Your task to perform on an android device: set the stopwatch Image 0: 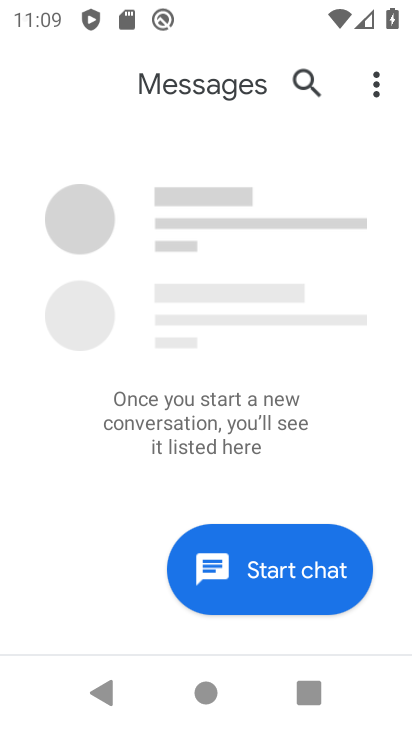
Step 0: press home button
Your task to perform on an android device: set the stopwatch Image 1: 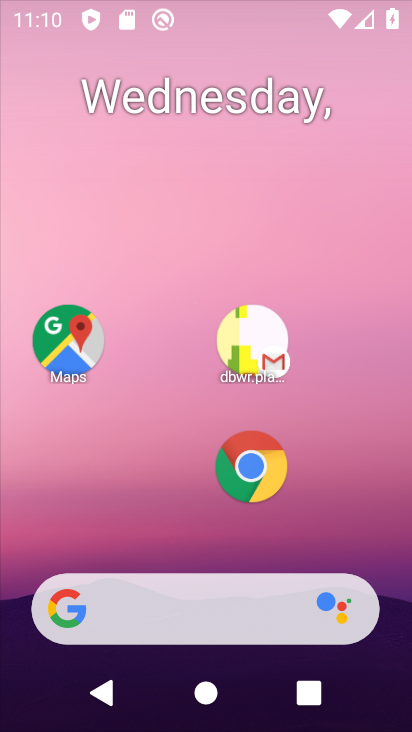
Step 1: drag from (265, 692) to (185, 67)
Your task to perform on an android device: set the stopwatch Image 2: 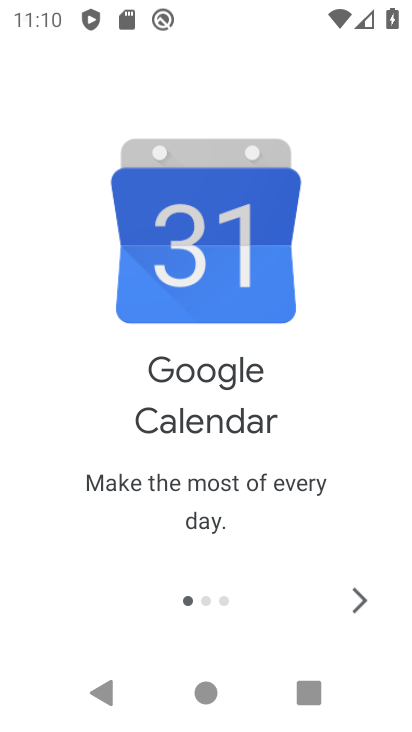
Step 2: click (356, 591)
Your task to perform on an android device: set the stopwatch Image 3: 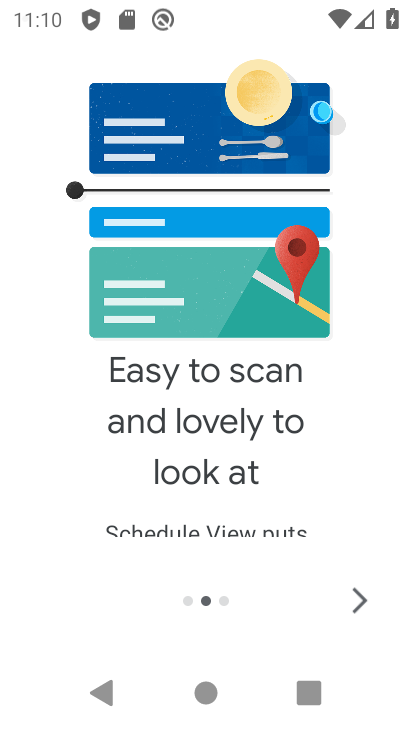
Step 3: click (356, 591)
Your task to perform on an android device: set the stopwatch Image 4: 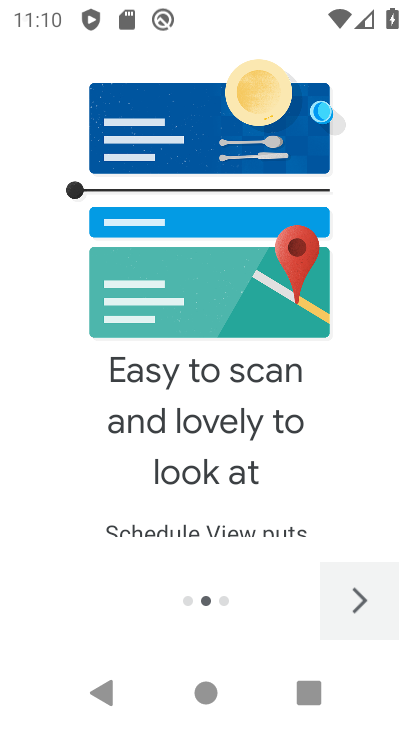
Step 4: click (357, 589)
Your task to perform on an android device: set the stopwatch Image 5: 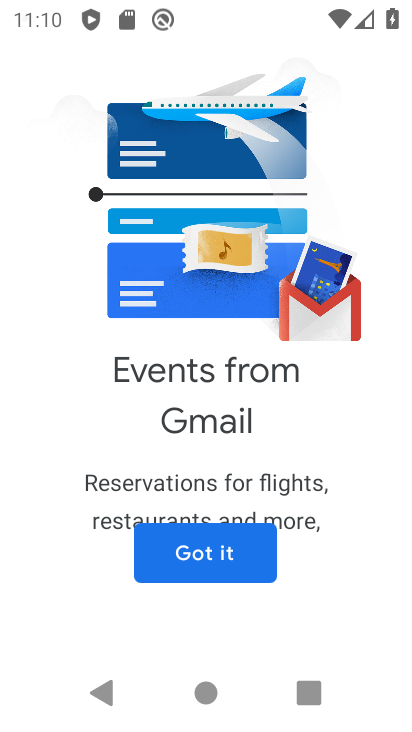
Step 5: click (206, 563)
Your task to perform on an android device: set the stopwatch Image 6: 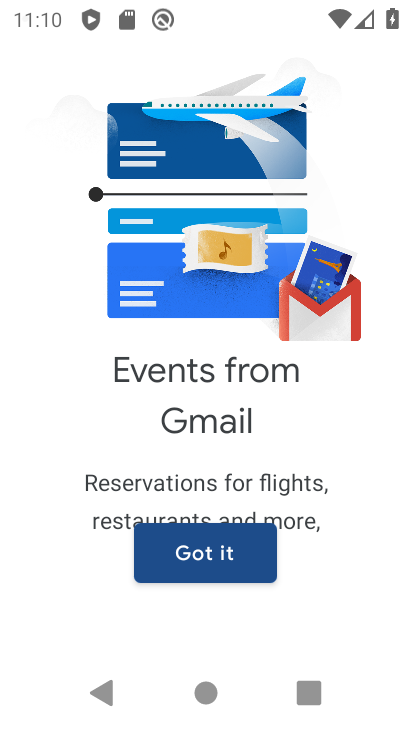
Step 6: click (206, 563)
Your task to perform on an android device: set the stopwatch Image 7: 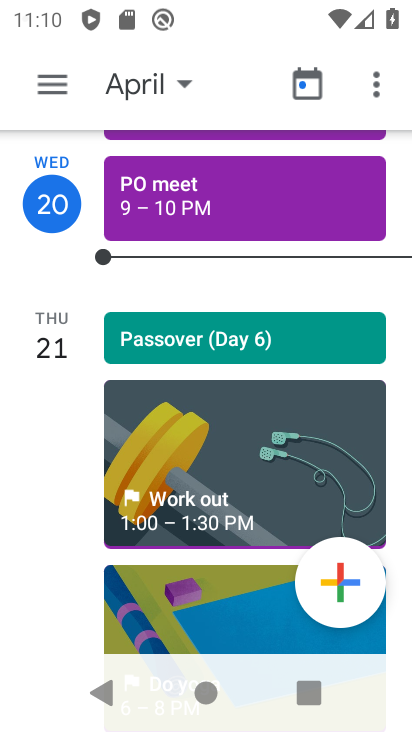
Step 7: press home button
Your task to perform on an android device: set the stopwatch Image 8: 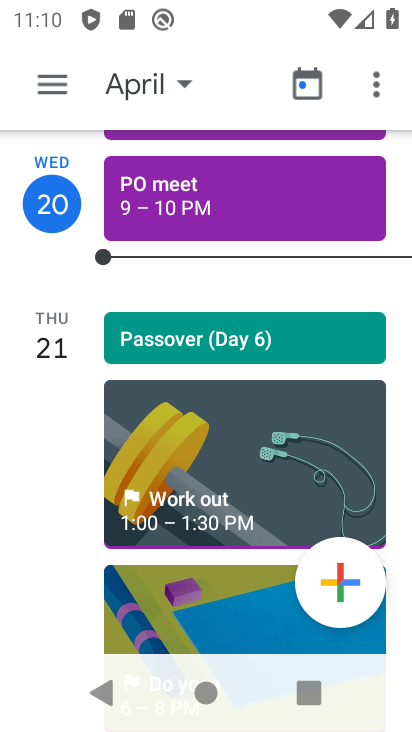
Step 8: press home button
Your task to perform on an android device: set the stopwatch Image 9: 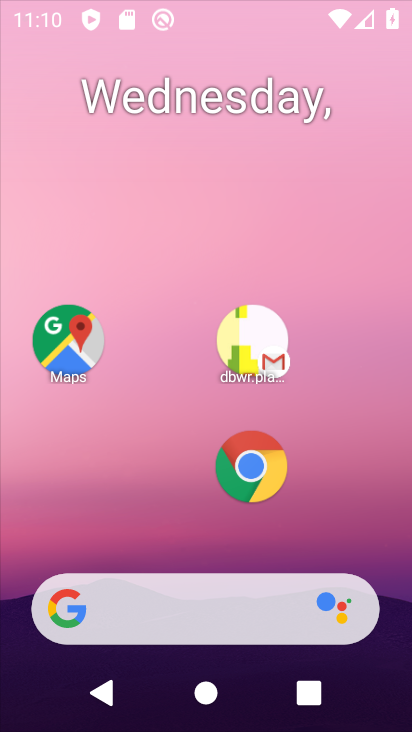
Step 9: press home button
Your task to perform on an android device: set the stopwatch Image 10: 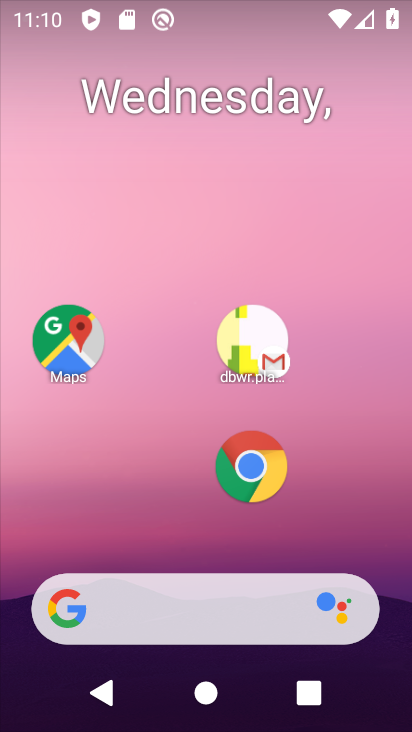
Step 10: press home button
Your task to perform on an android device: set the stopwatch Image 11: 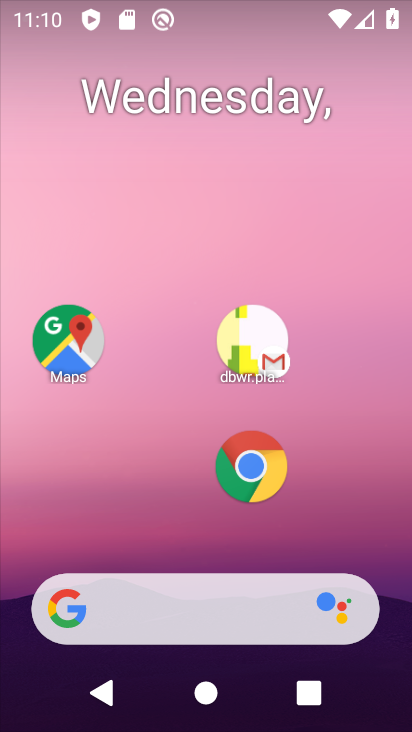
Step 11: press home button
Your task to perform on an android device: set the stopwatch Image 12: 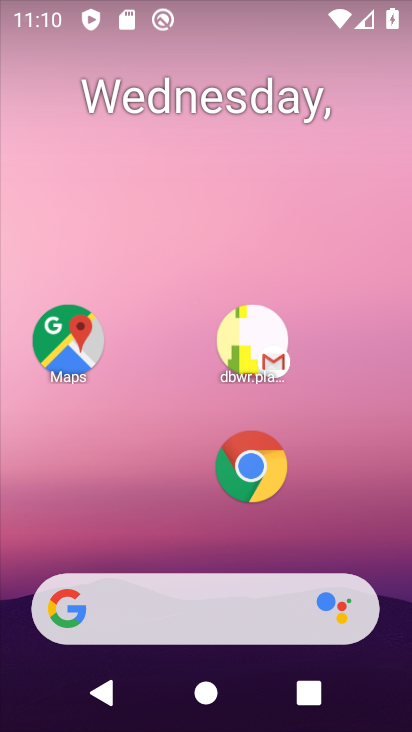
Step 12: drag from (163, 208) to (156, 148)
Your task to perform on an android device: set the stopwatch Image 13: 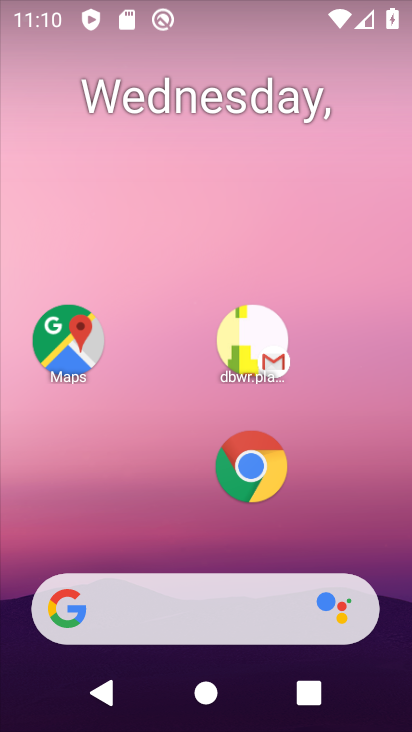
Step 13: drag from (291, 679) to (344, 43)
Your task to perform on an android device: set the stopwatch Image 14: 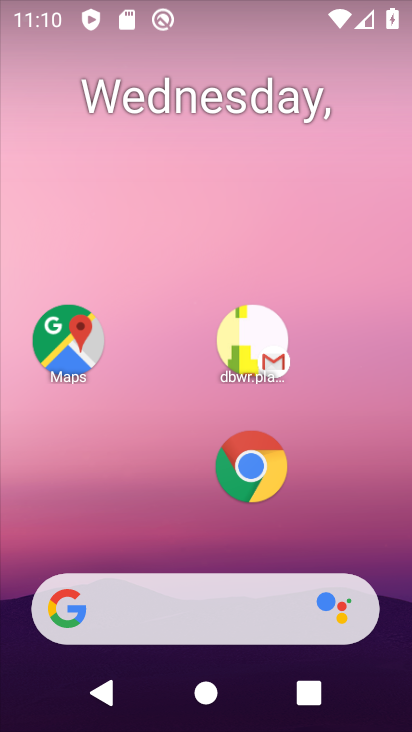
Step 14: drag from (241, 559) to (177, 176)
Your task to perform on an android device: set the stopwatch Image 15: 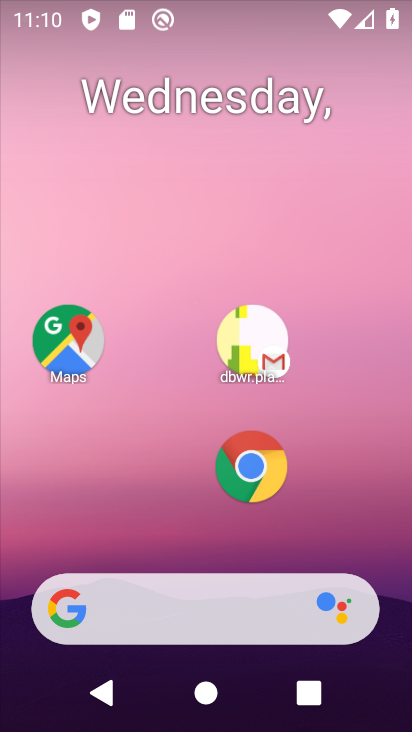
Step 15: drag from (286, 498) to (120, 10)
Your task to perform on an android device: set the stopwatch Image 16: 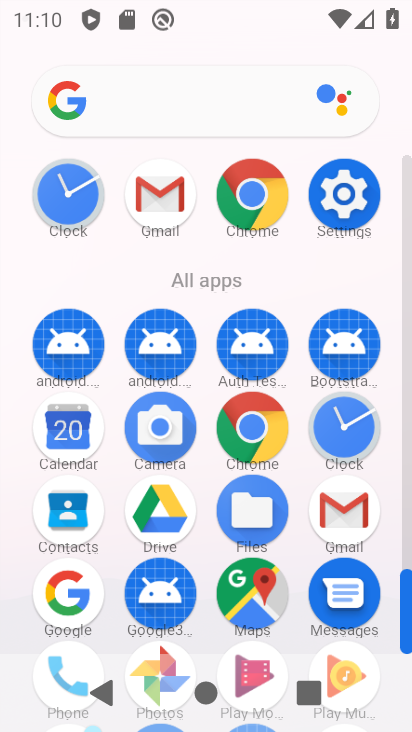
Step 16: click (330, 427)
Your task to perform on an android device: set the stopwatch Image 17: 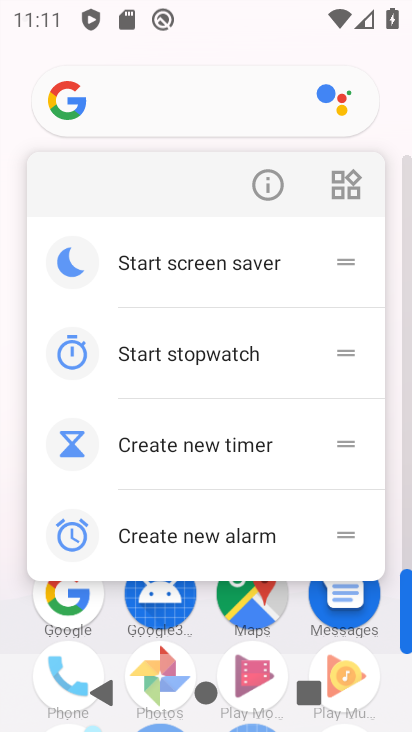
Step 17: click (154, 346)
Your task to perform on an android device: set the stopwatch Image 18: 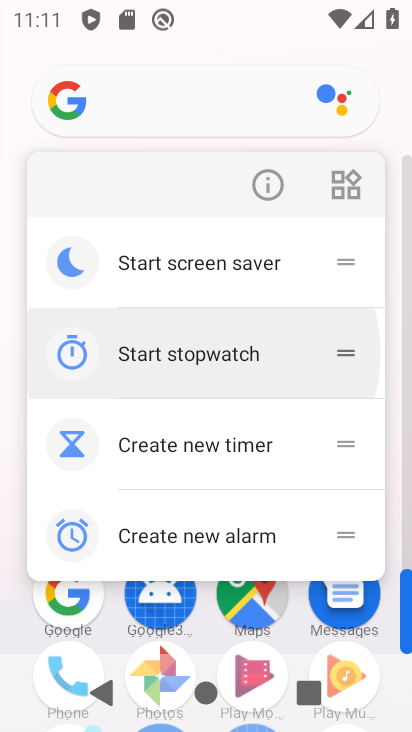
Step 18: drag from (161, 350) to (236, 360)
Your task to perform on an android device: set the stopwatch Image 19: 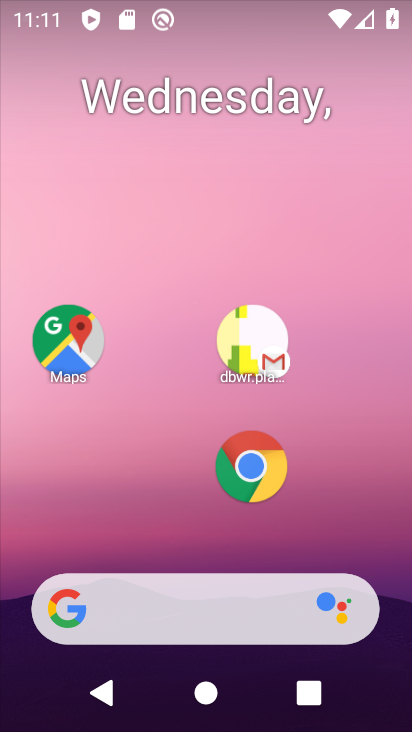
Step 19: drag from (298, 644) to (174, 249)
Your task to perform on an android device: set the stopwatch Image 20: 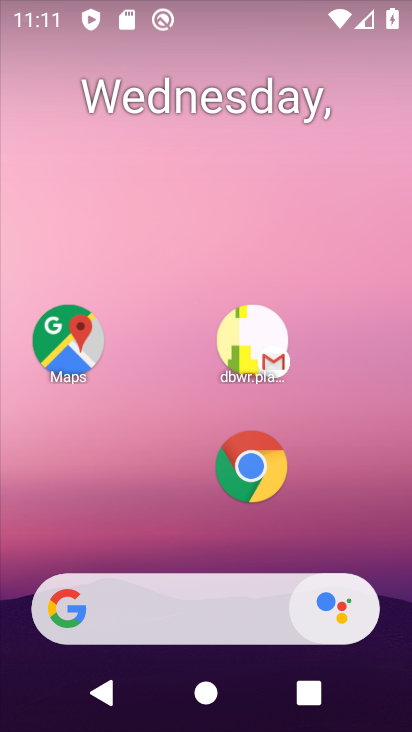
Step 20: drag from (315, 558) to (232, 169)
Your task to perform on an android device: set the stopwatch Image 21: 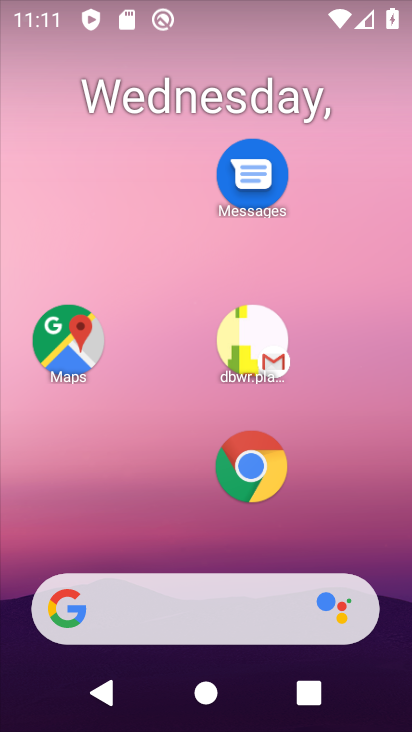
Step 21: drag from (338, 583) to (179, 85)
Your task to perform on an android device: set the stopwatch Image 22: 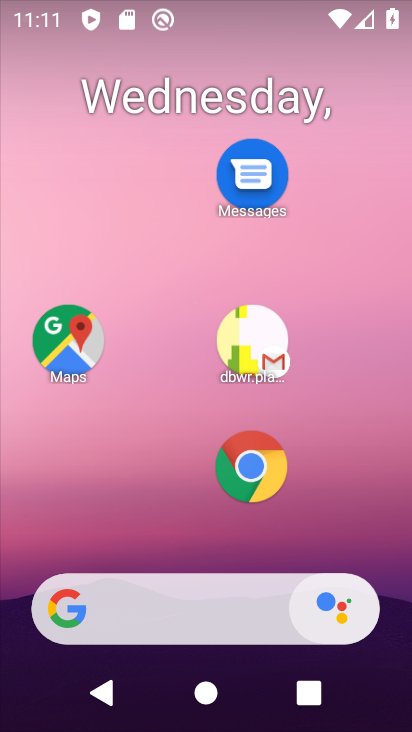
Step 22: drag from (256, 543) to (141, 139)
Your task to perform on an android device: set the stopwatch Image 23: 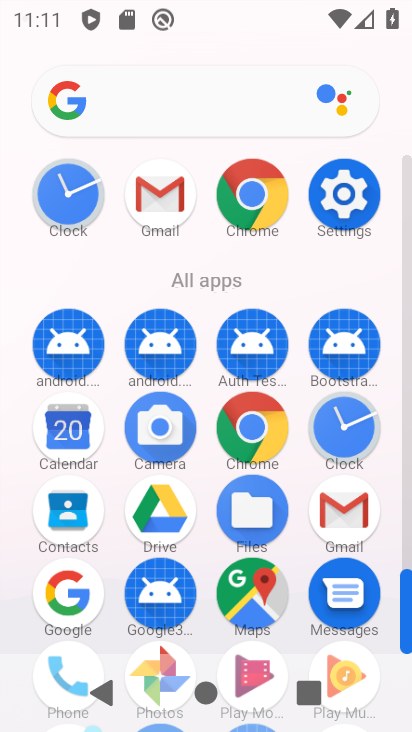
Step 23: click (338, 409)
Your task to perform on an android device: set the stopwatch Image 24: 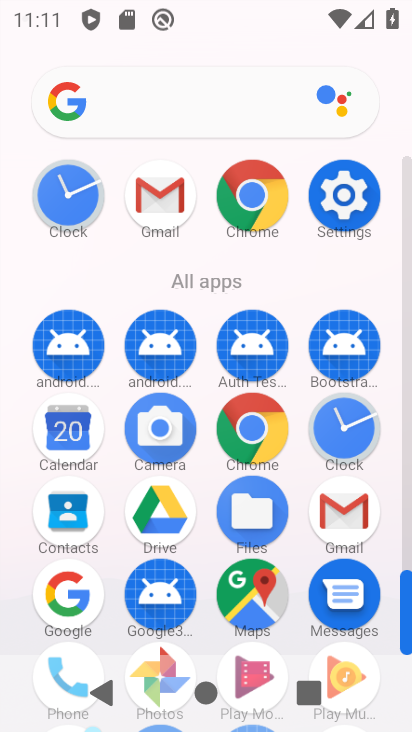
Step 24: click (342, 424)
Your task to perform on an android device: set the stopwatch Image 25: 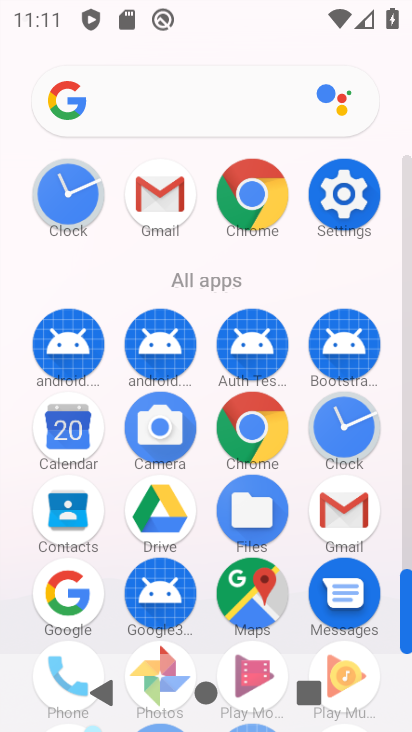
Step 25: click (342, 424)
Your task to perform on an android device: set the stopwatch Image 26: 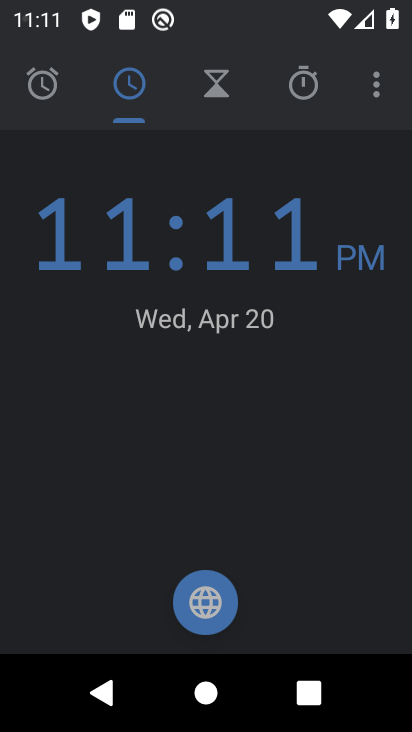
Step 26: click (342, 425)
Your task to perform on an android device: set the stopwatch Image 27: 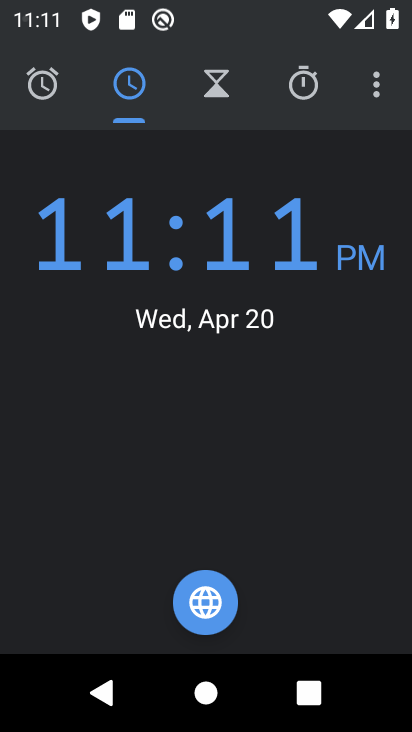
Step 27: click (342, 425)
Your task to perform on an android device: set the stopwatch Image 28: 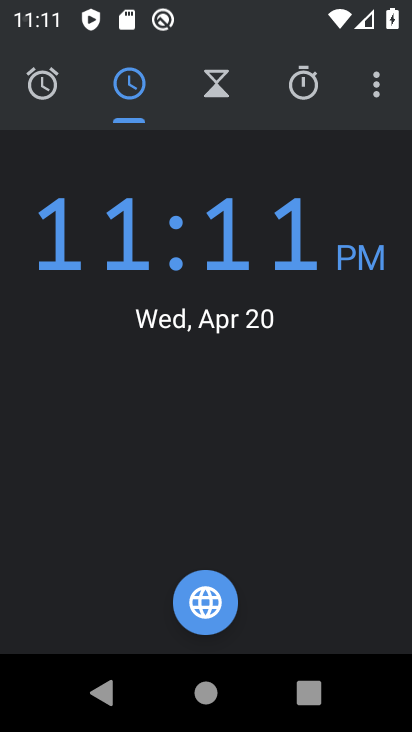
Step 28: click (376, 81)
Your task to perform on an android device: set the stopwatch Image 29: 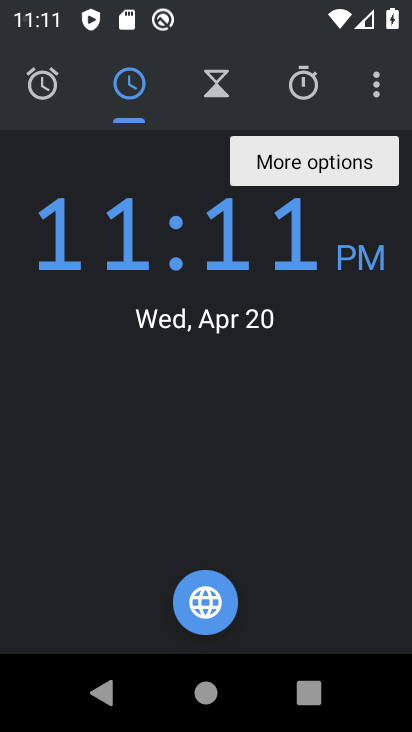
Step 29: drag from (223, 383) to (297, 91)
Your task to perform on an android device: set the stopwatch Image 30: 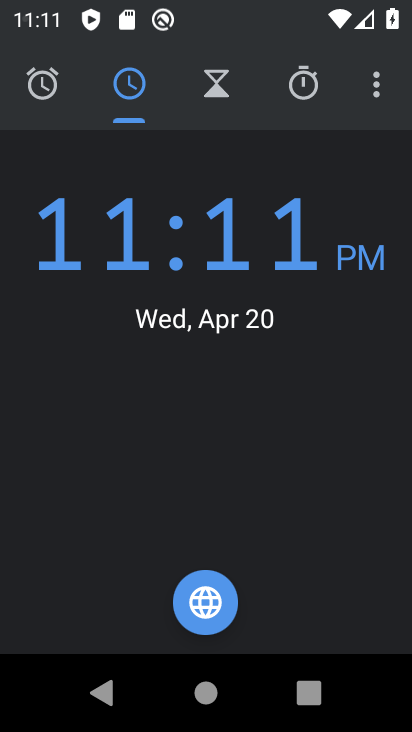
Step 30: click (297, 91)
Your task to perform on an android device: set the stopwatch Image 31: 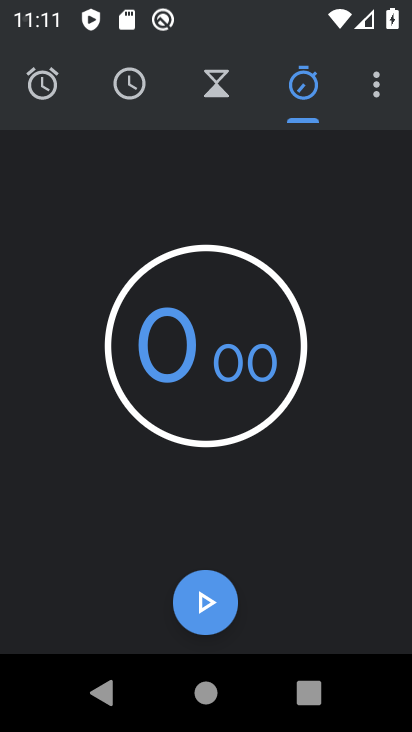
Step 31: click (297, 91)
Your task to perform on an android device: set the stopwatch Image 32: 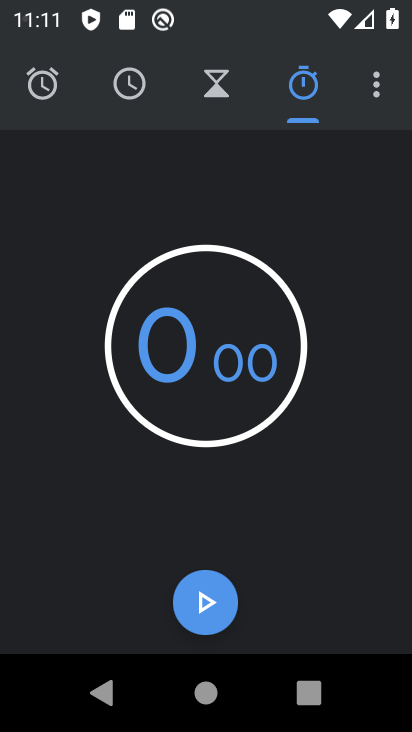
Step 32: click (186, 598)
Your task to perform on an android device: set the stopwatch Image 33: 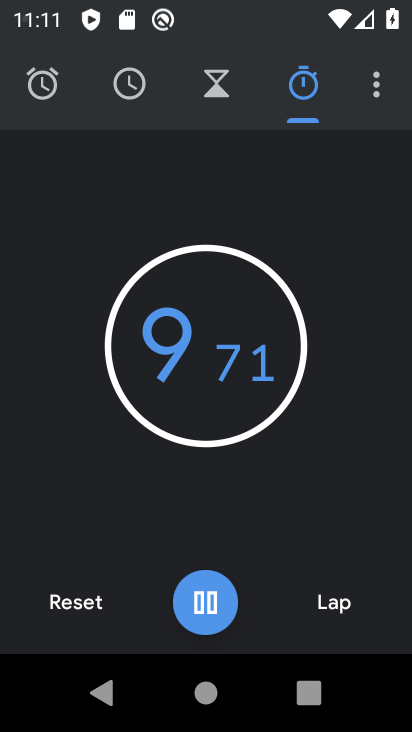
Step 33: click (201, 602)
Your task to perform on an android device: set the stopwatch Image 34: 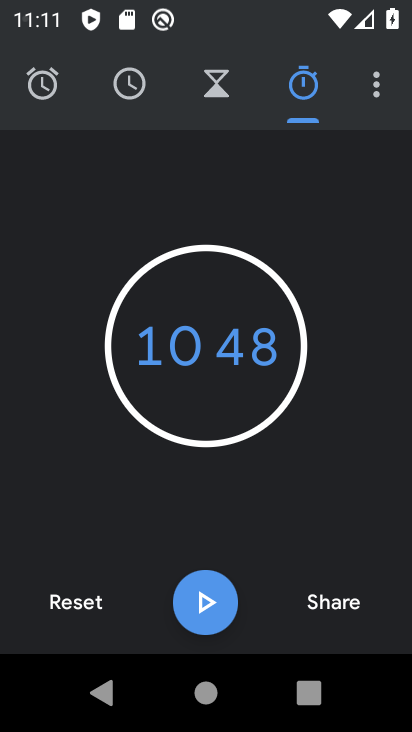
Step 34: task complete